Your task to perform on an android device: delete location history Image 0: 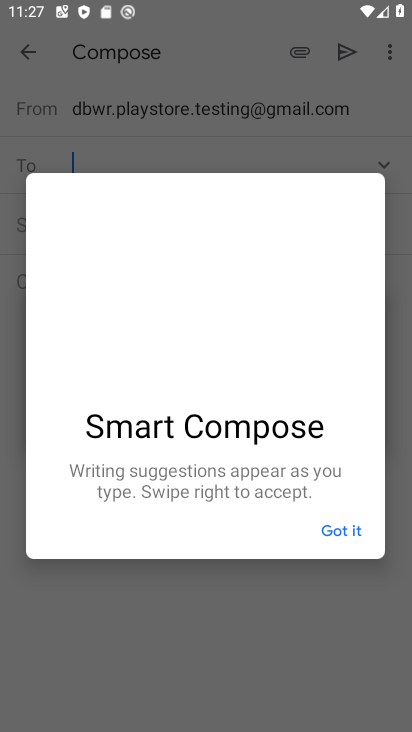
Step 0: press home button
Your task to perform on an android device: delete location history Image 1: 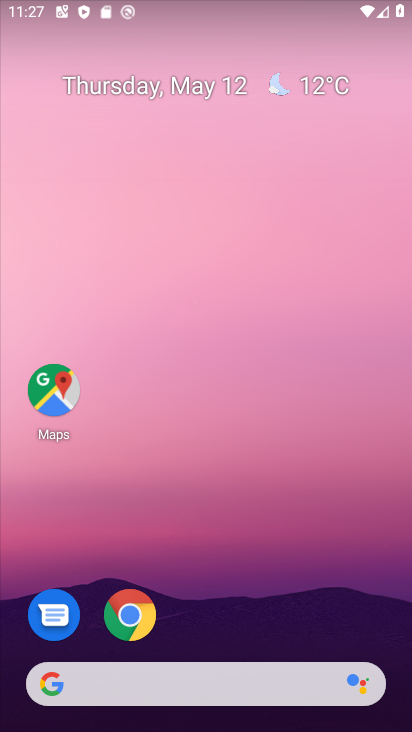
Step 1: click (136, 613)
Your task to perform on an android device: delete location history Image 2: 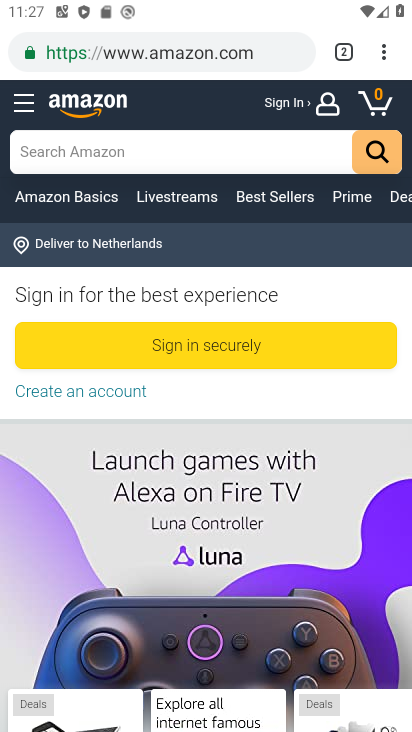
Step 2: press home button
Your task to perform on an android device: delete location history Image 3: 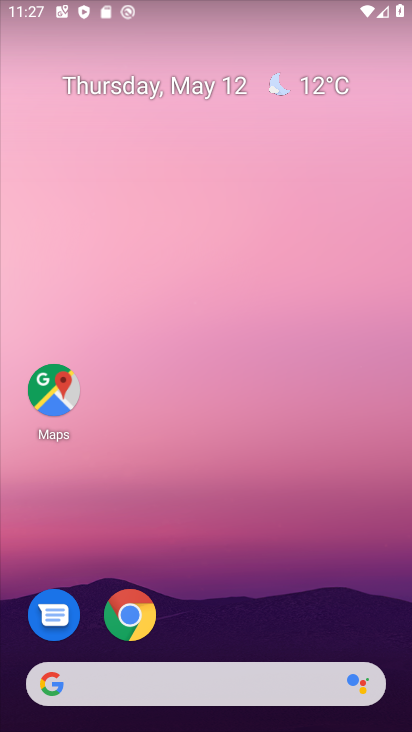
Step 3: click (73, 398)
Your task to perform on an android device: delete location history Image 4: 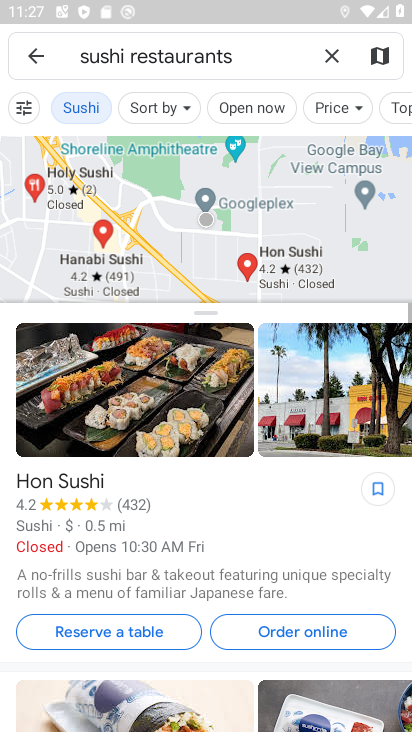
Step 4: click (42, 57)
Your task to perform on an android device: delete location history Image 5: 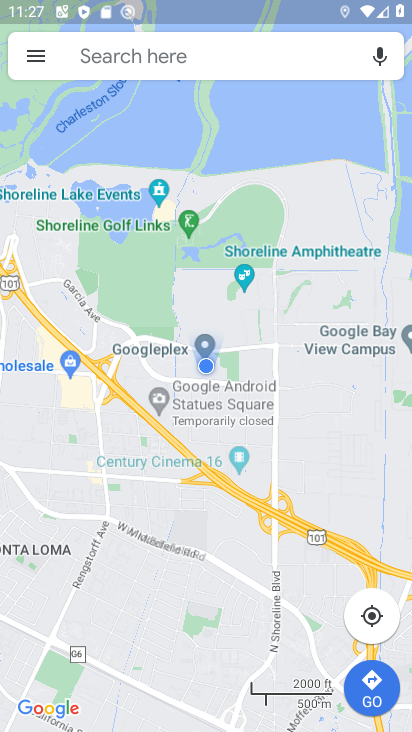
Step 5: click (42, 57)
Your task to perform on an android device: delete location history Image 6: 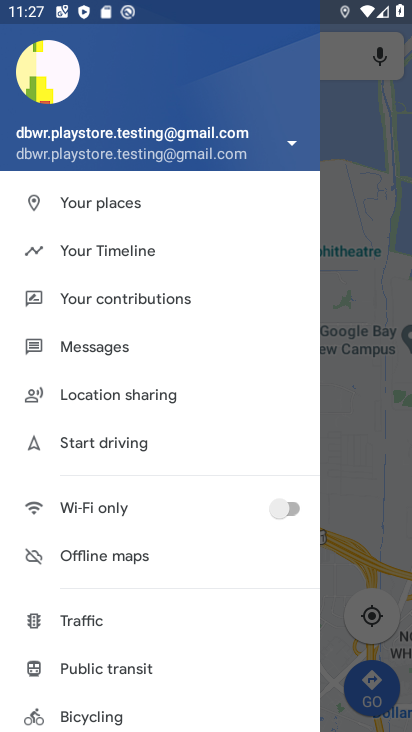
Step 6: drag from (150, 647) to (161, 487)
Your task to perform on an android device: delete location history Image 7: 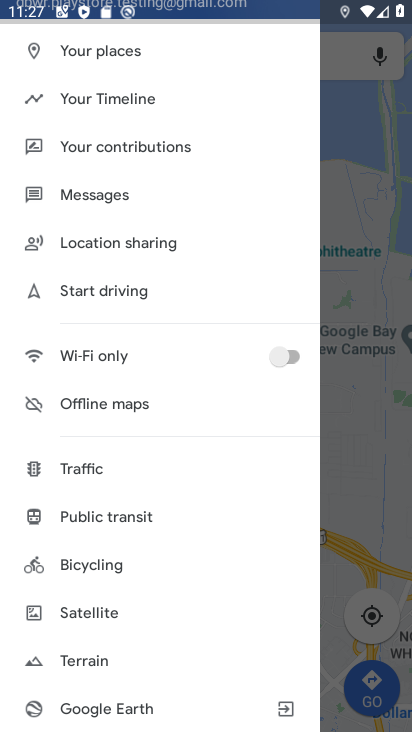
Step 7: drag from (158, 648) to (163, 536)
Your task to perform on an android device: delete location history Image 8: 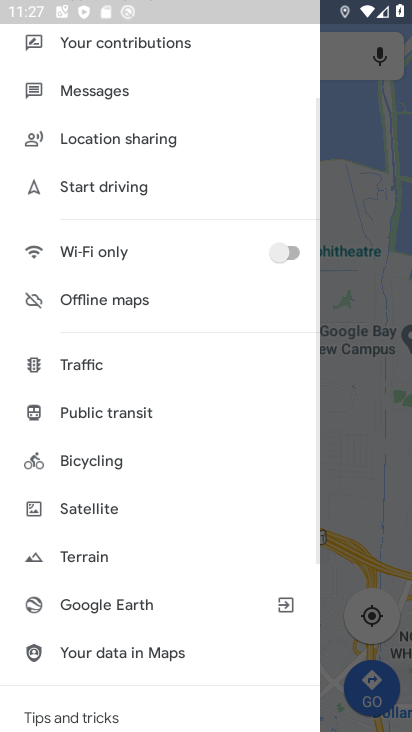
Step 8: drag from (138, 138) to (147, 492)
Your task to perform on an android device: delete location history Image 9: 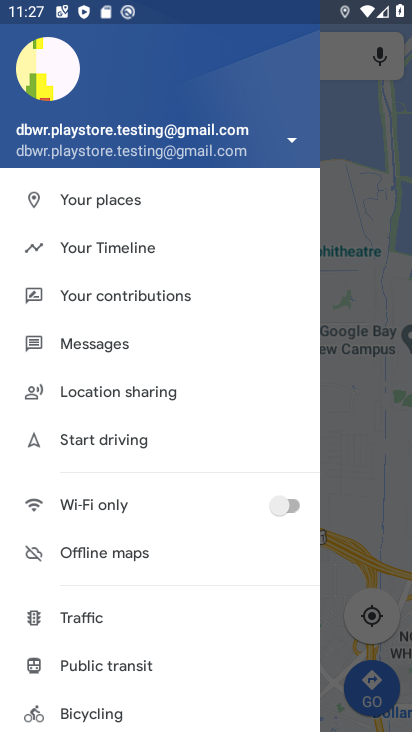
Step 9: click (101, 250)
Your task to perform on an android device: delete location history Image 10: 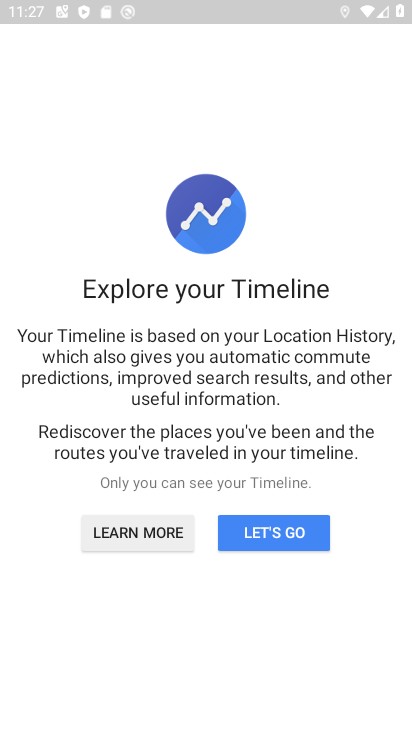
Step 10: click (289, 534)
Your task to perform on an android device: delete location history Image 11: 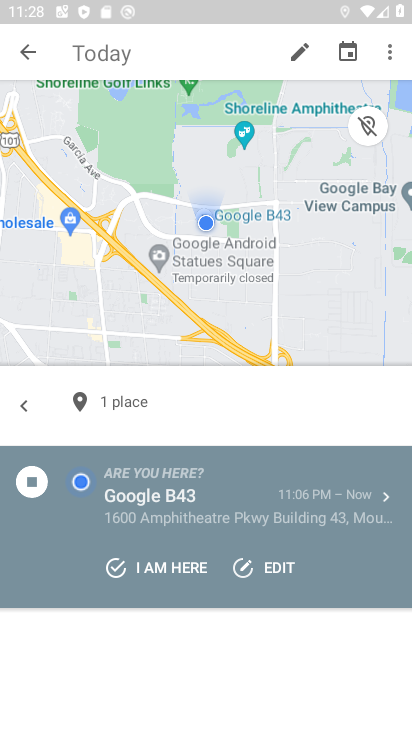
Step 11: click (386, 57)
Your task to perform on an android device: delete location history Image 12: 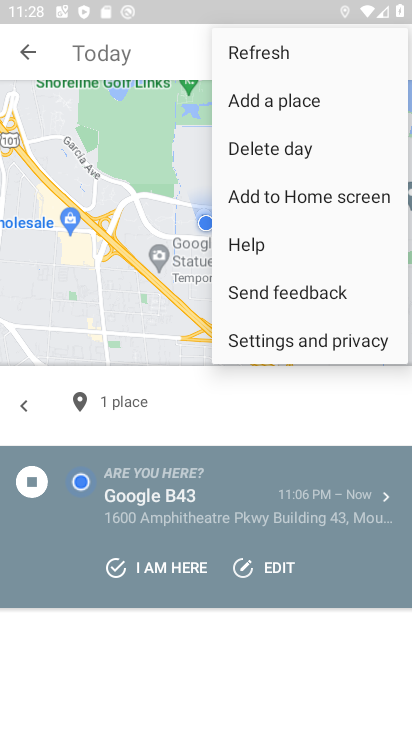
Step 12: click (297, 338)
Your task to perform on an android device: delete location history Image 13: 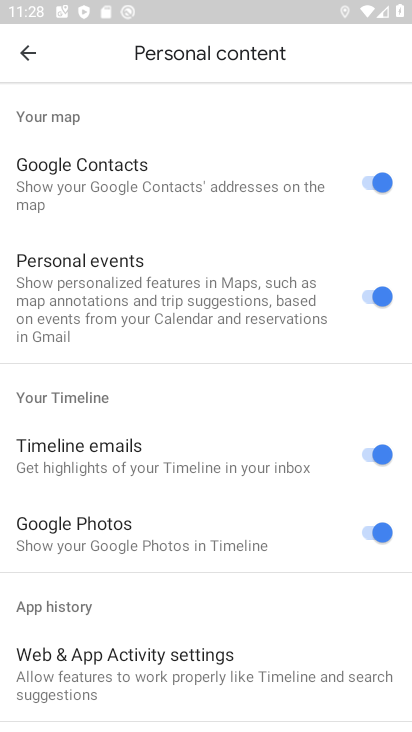
Step 13: drag from (177, 575) to (210, 368)
Your task to perform on an android device: delete location history Image 14: 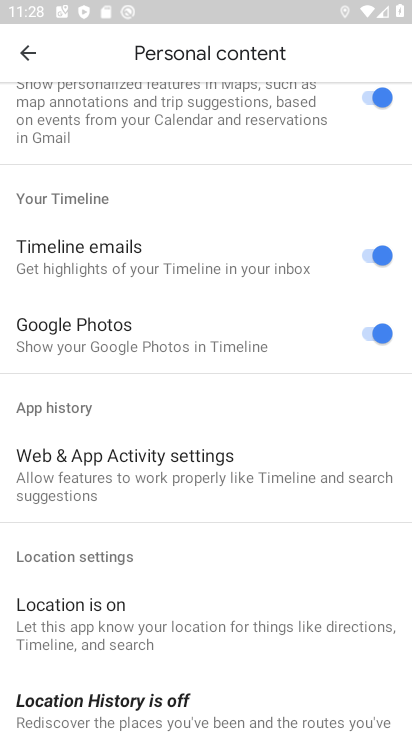
Step 14: drag from (222, 664) to (256, 405)
Your task to perform on an android device: delete location history Image 15: 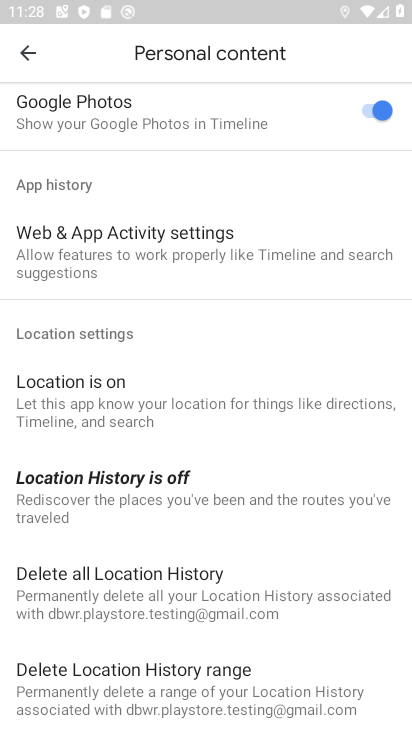
Step 15: click (215, 585)
Your task to perform on an android device: delete location history Image 16: 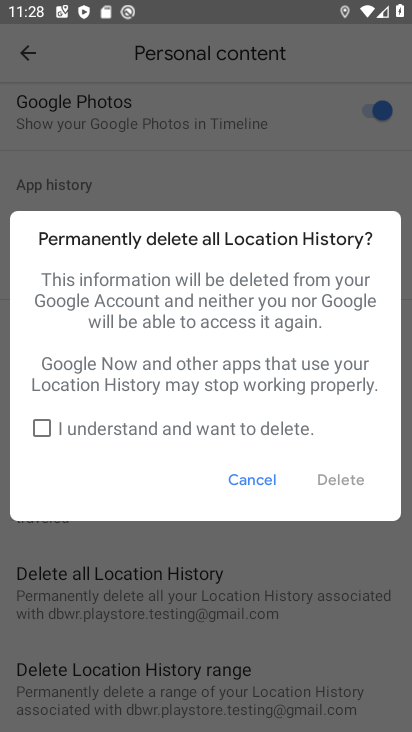
Step 16: click (172, 422)
Your task to perform on an android device: delete location history Image 17: 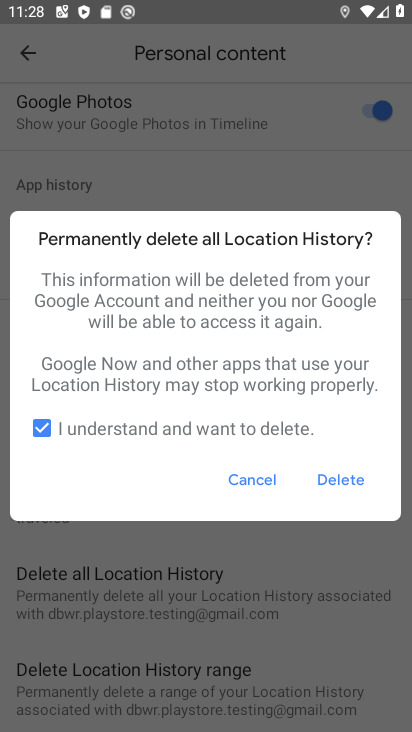
Step 17: click (321, 468)
Your task to perform on an android device: delete location history Image 18: 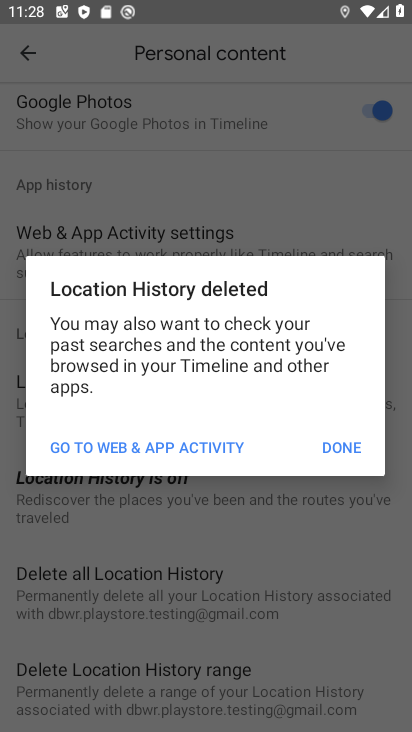
Step 18: click (344, 449)
Your task to perform on an android device: delete location history Image 19: 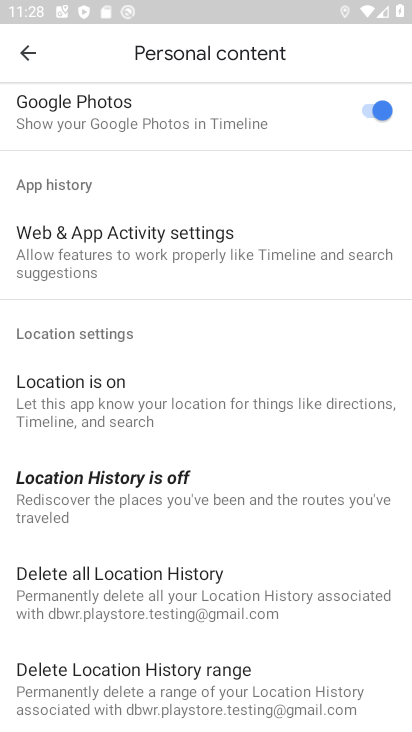
Step 19: task complete